Your task to perform on an android device: search for starred emails in the gmail app Image 0: 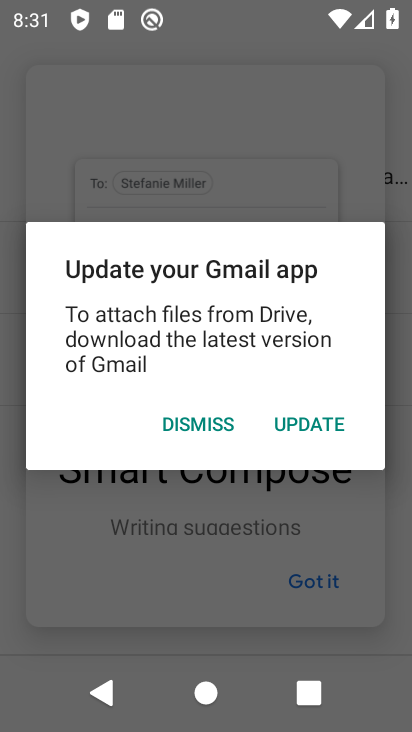
Step 0: press home button
Your task to perform on an android device: search for starred emails in the gmail app Image 1: 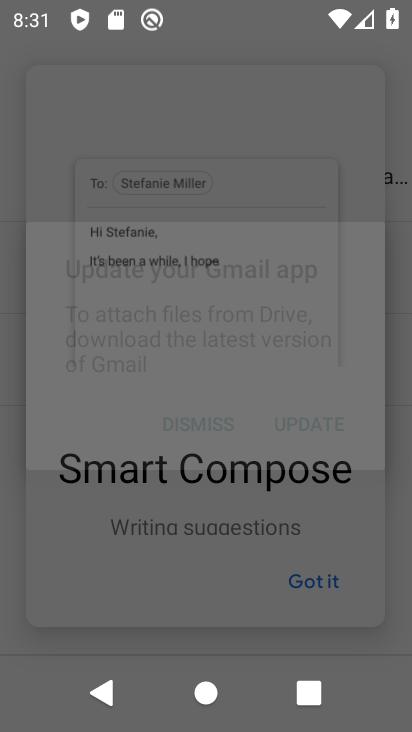
Step 1: press home button
Your task to perform on an android device: search for starred emails in the gmail app Image 2: 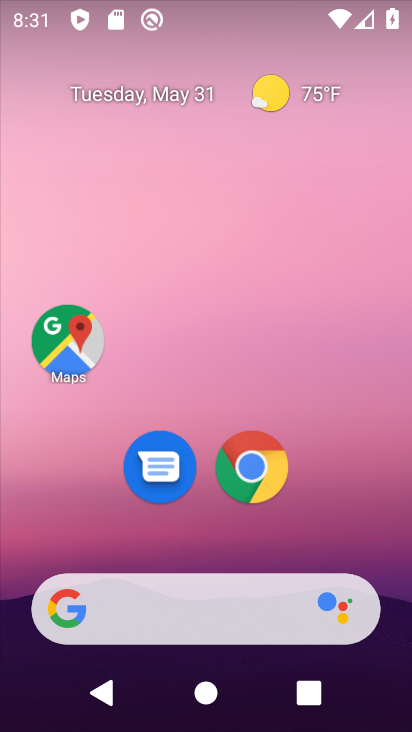
Step 2: drag from (209, 491) to (224, 69)
Your task to perform on an android device: search for starred emails in the gmail app Image 3: 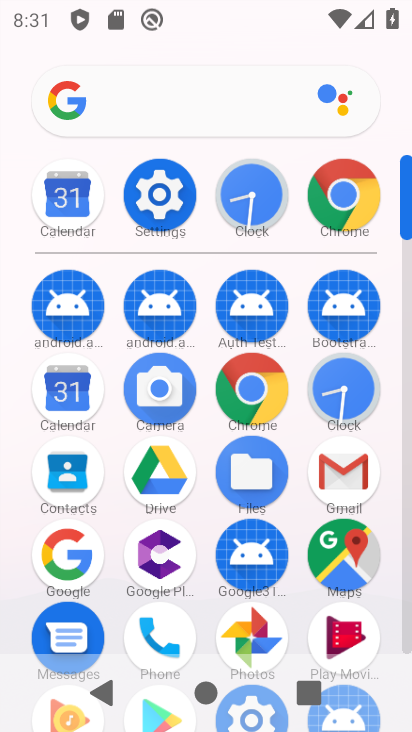
Step 3: click (353, 470)
Your task to perform on an android device: search for starred emails in the gmail app Image 4: 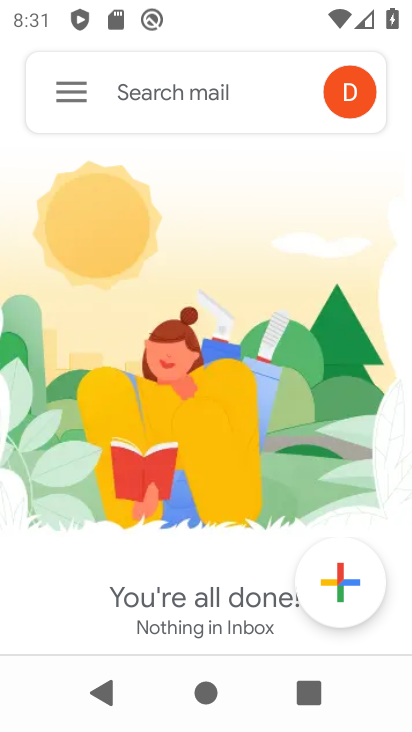
Step 4: click (62, 79)
Your task to perform on an android device: search for starred emails in the gmail app Image 5: 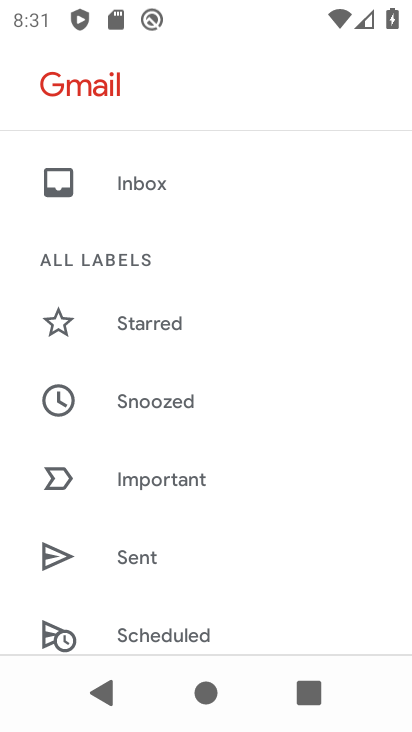
Step 5: click (180, 342)
Your task to perform on an android device: search for starred emails in the gmail app Image 6: 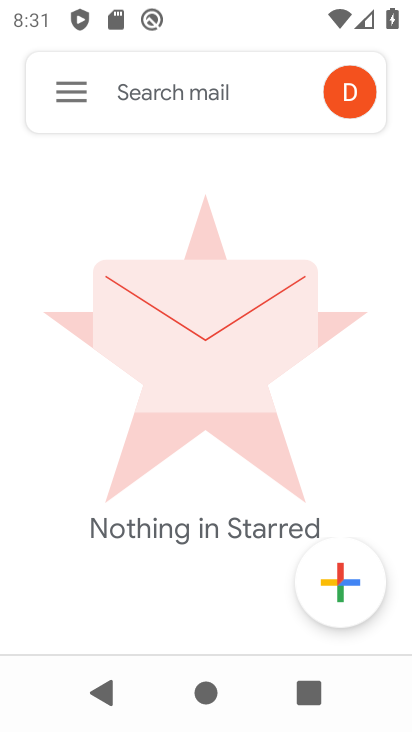
Step 6: task complete